Your task to perform on an android device: Go to calendar. Show me events next week Image 0: 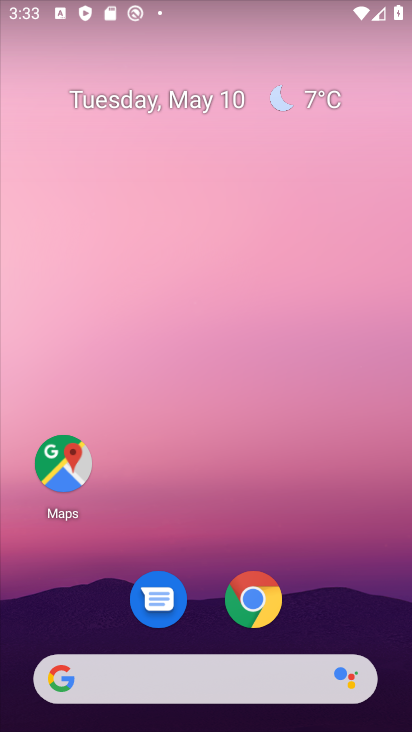
Step 0: drag from (300, 595) to (409, 145)
Your task to perform on an android device: Go to calendar. Show me events next week Image 1: 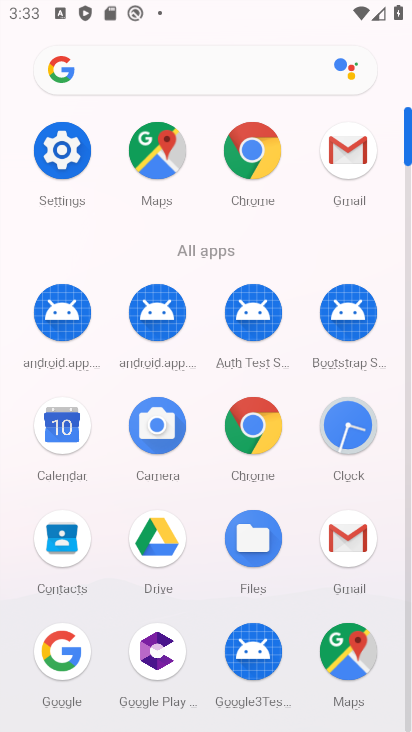
Step 1: drag from (196, 595) to (299, 229)
Your task to perform on an android device: Go to calendar. Show me events next week Image 2: 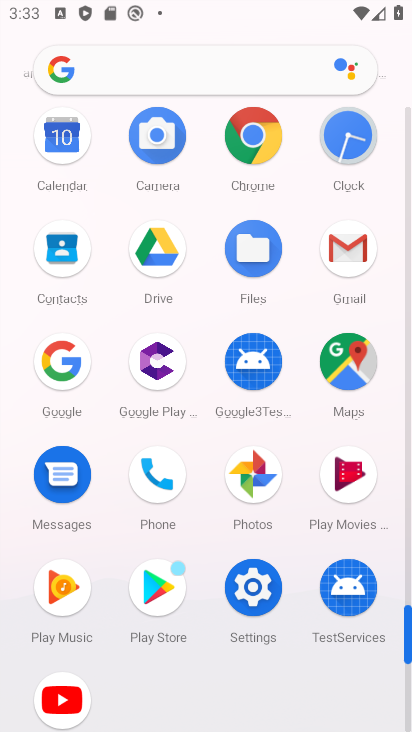
Step 2: click (76, 144)
Your task to perform on an android device: Go to calendar. Show me events next week Image 3: 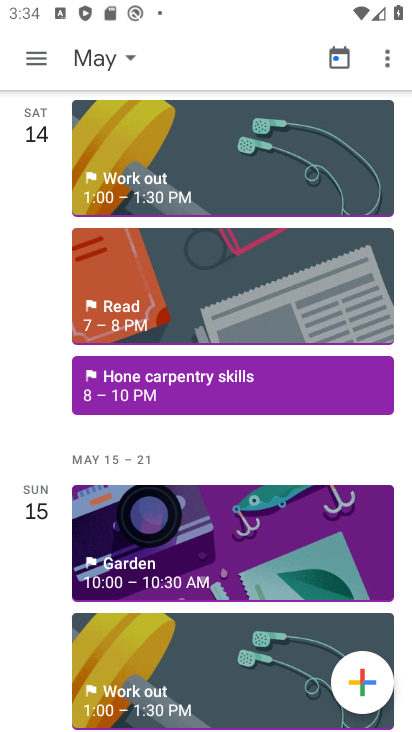
Step 3: click (120, 54)
Your task to perform on an android device: Go to calendar. Show me events next week Image 4: 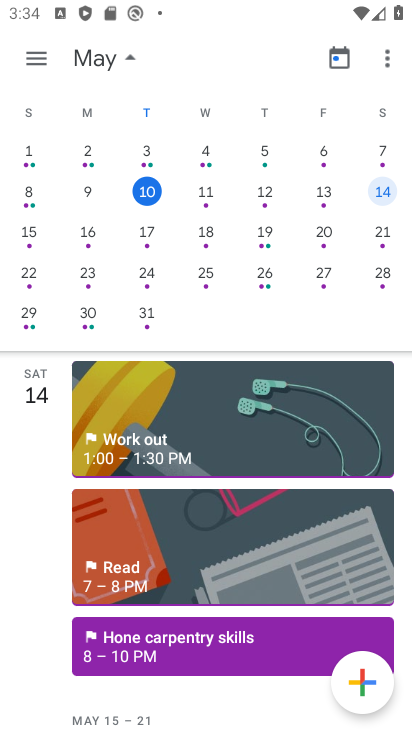
Step 4: click (38, 242)
Your task to perform on an android device: Go to calendar. Show me events next week Image 5: 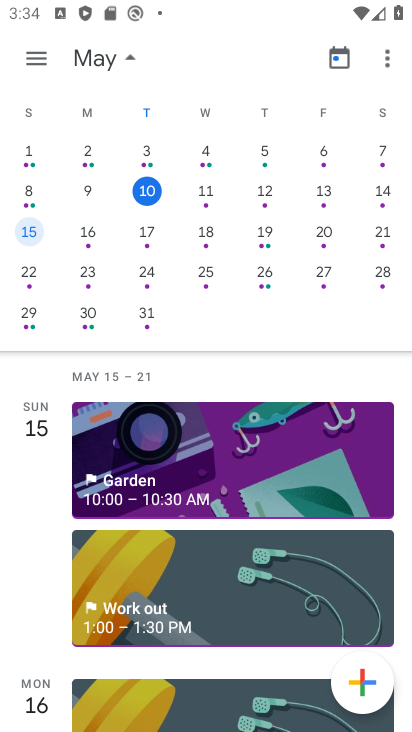
Step 5: task complete